Your task to perform on an android device: Show me popular videos on Youtube Image 0: 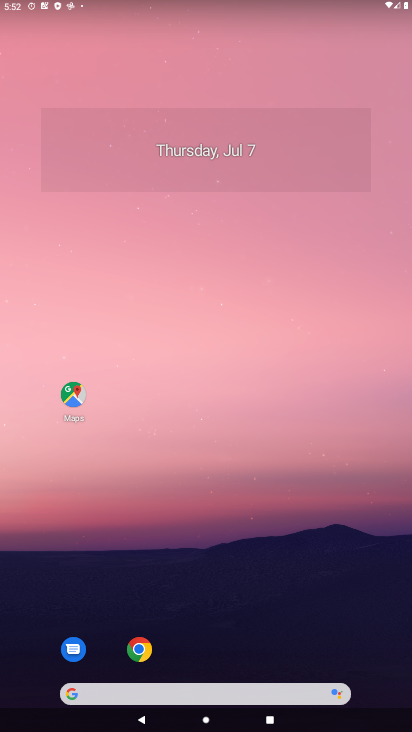
Step 0: drag from (365, 671) to (219, 16)
Your task to perform on an android device: Show me popular videos on Youtube Image 1: 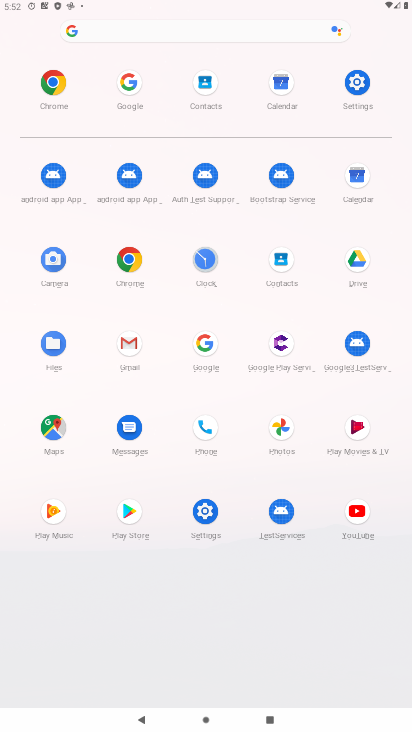
Step 1: click (361, 518)
Your task to perform on an android device: Show me popular videos on Youtube Image 2: 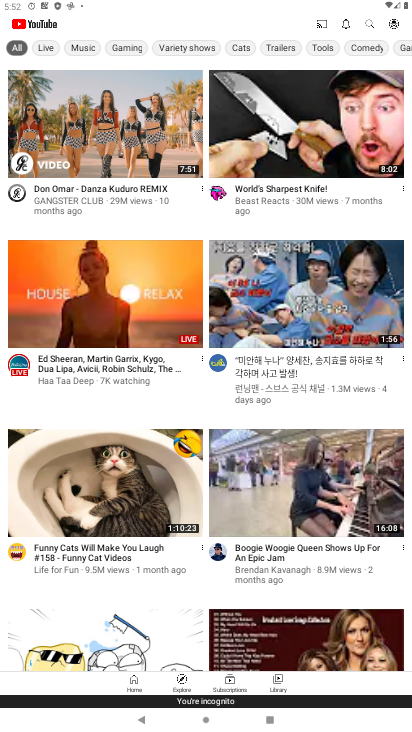
Step 2: click (175, 679)
Your task to perform on an android device: Show me popular videos on Youtube Image 3: 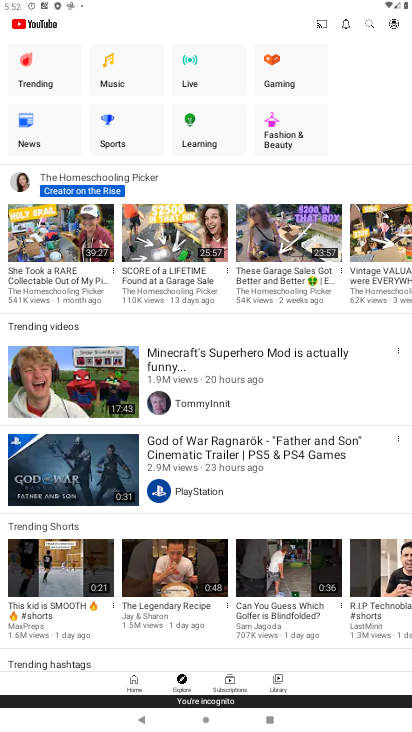
Step 3: click (46, 75)
Your task to perform on an android device: Show me popular videos on Youtube Image 4: 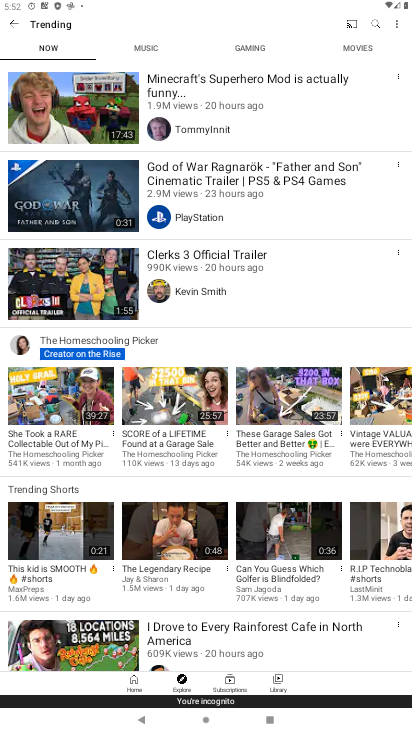
Step 4: task complete